Your task to perform on an android device: Search for hotels in New York Image 0: 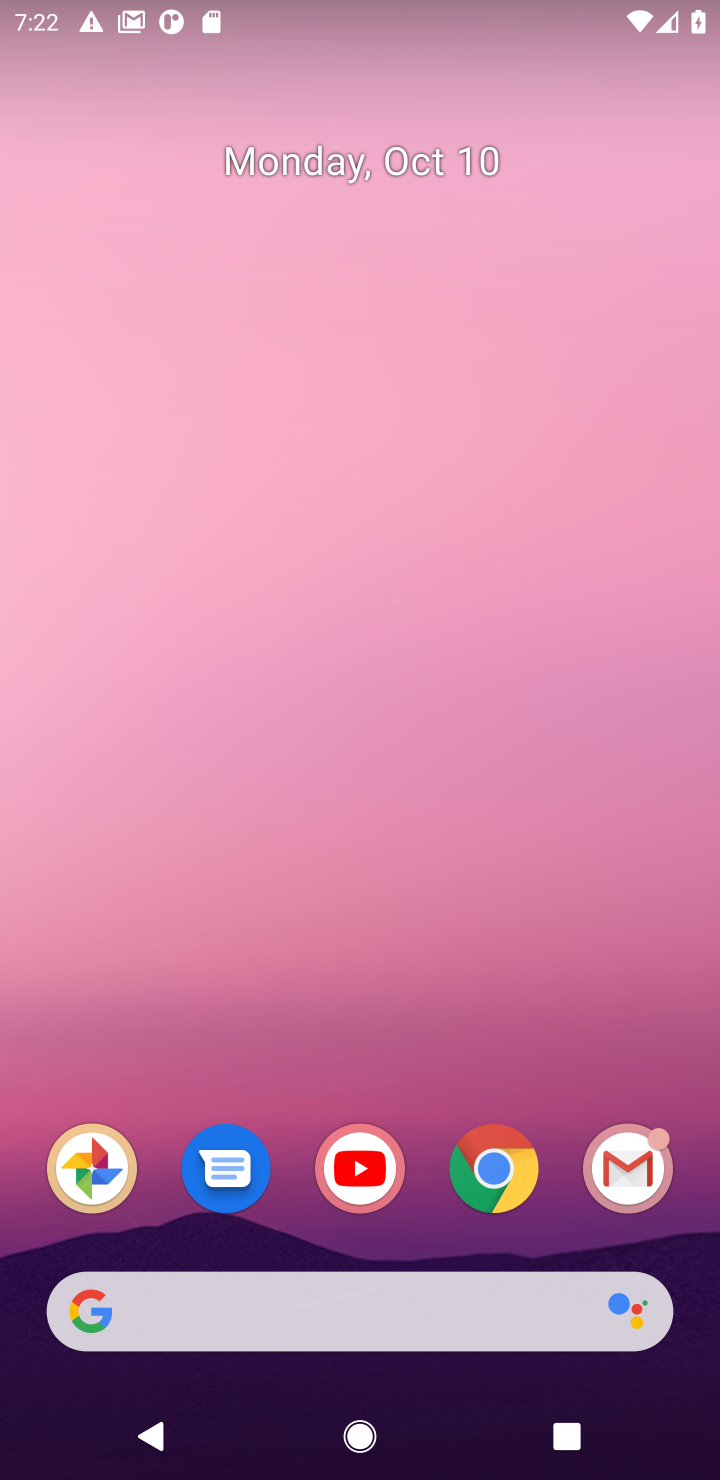
Step 0: click (477, 1171)
Your task to perform on an android device: Search for hotels in New York Image 1: 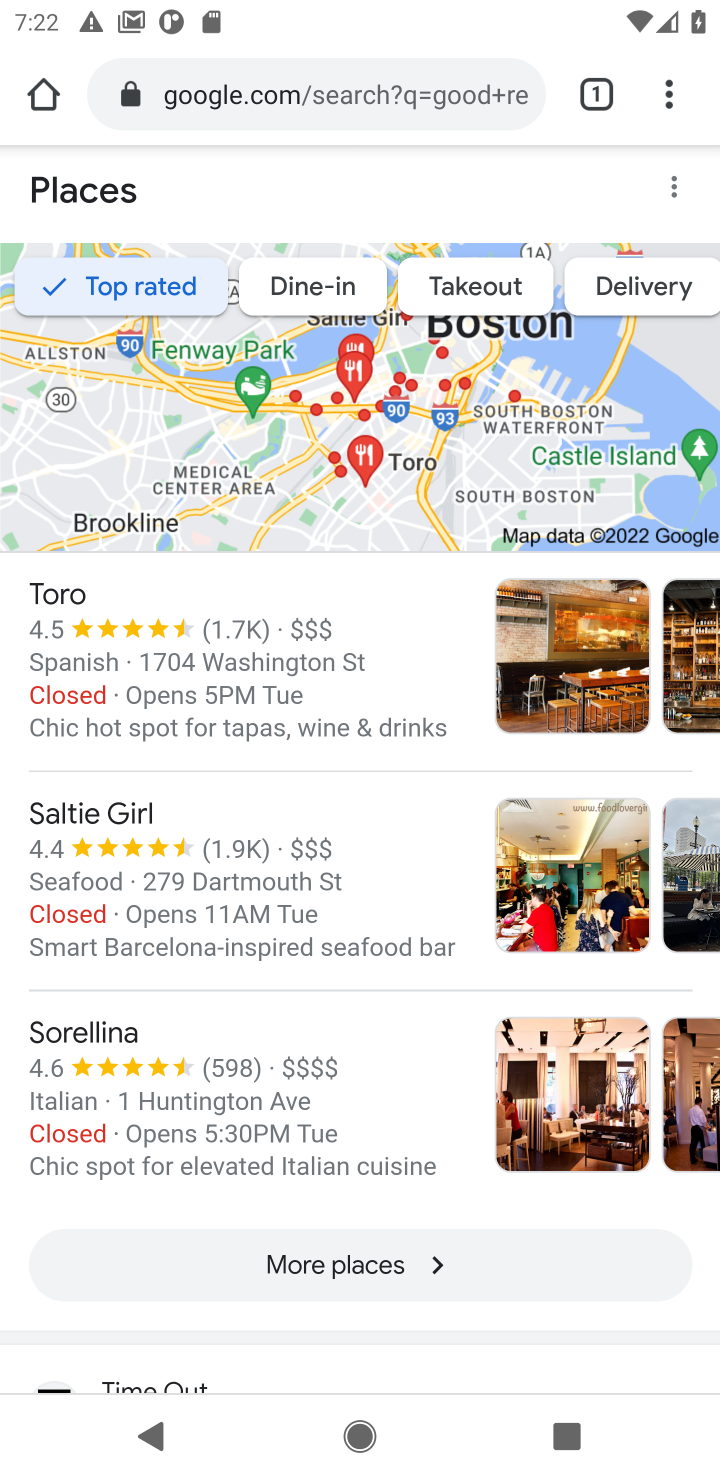
Step 1: click (270, 108)
Your task to perform on an android device: Search for hotels in New York Image 2: 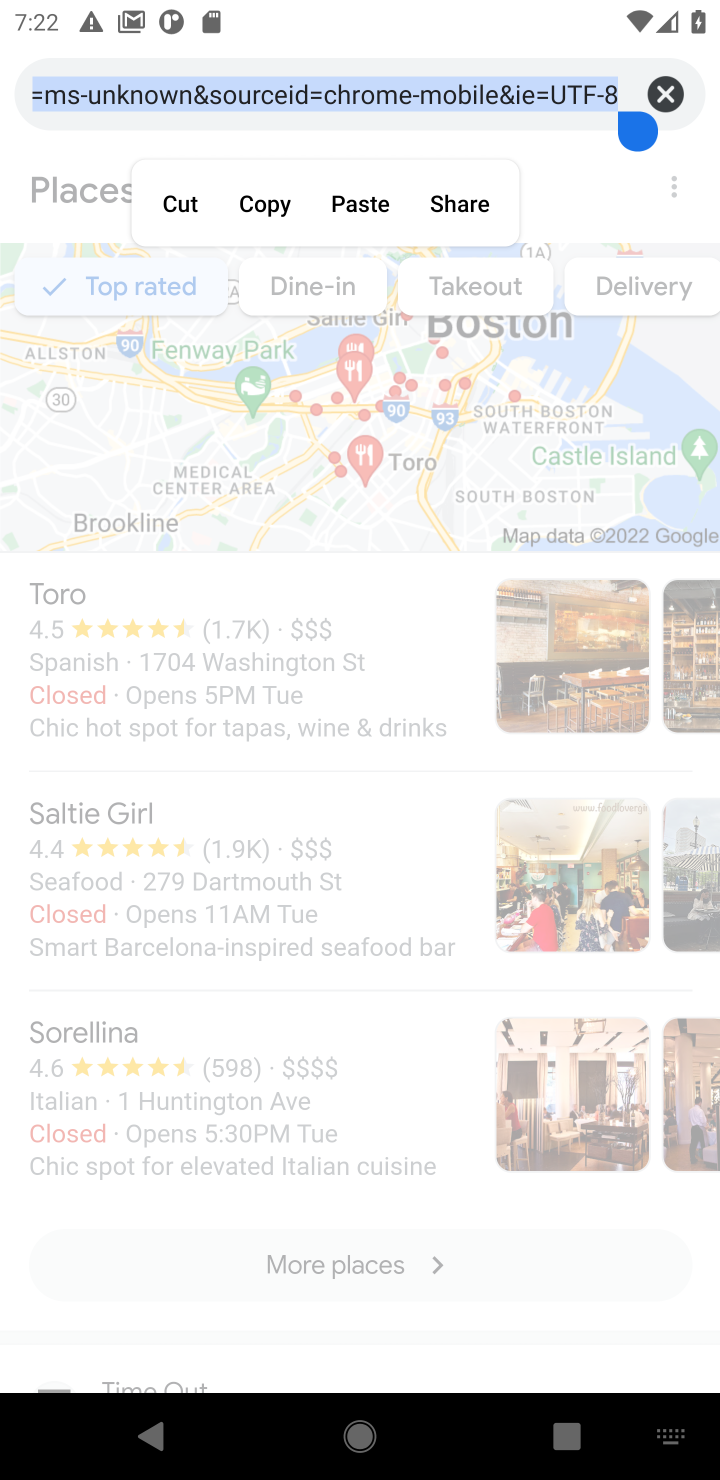
Step 2: click (675, 111)
Your task to perform on an android device: Search for hotels in New York Image 3: 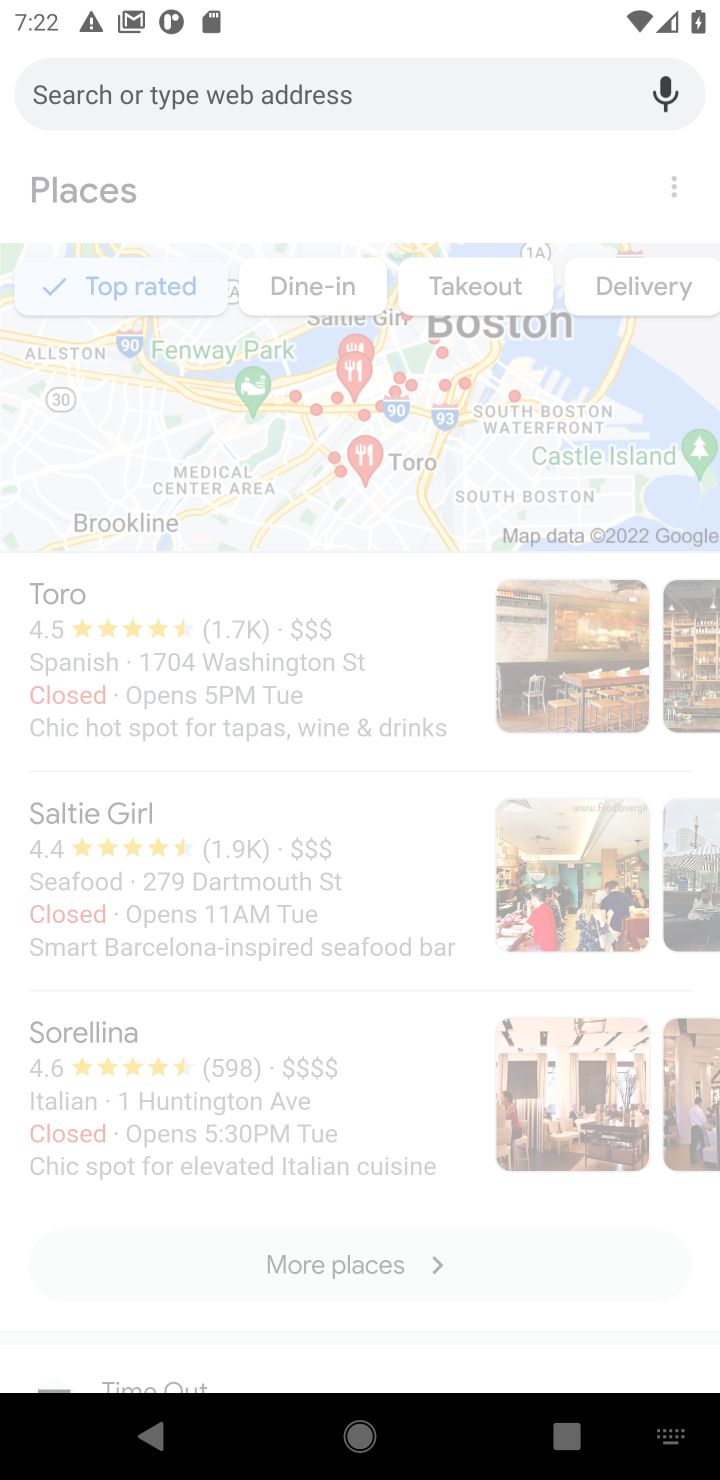
Step 3: type "hotels in new york"
Your task to perform on an android device: Search for hotels in New York Image 4: 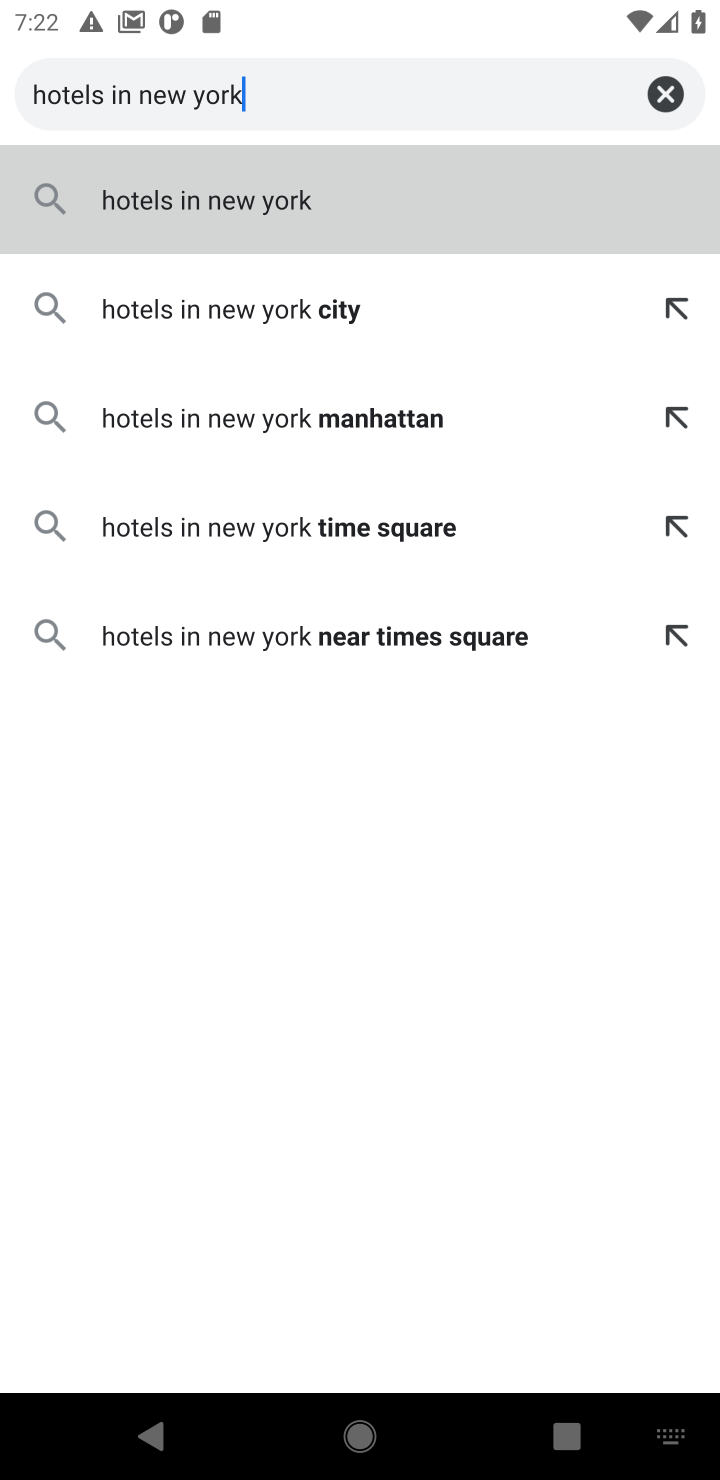
Step 4: click (208, 201)
Your task to perform on an android device: Search for hotels in New York Image 5: 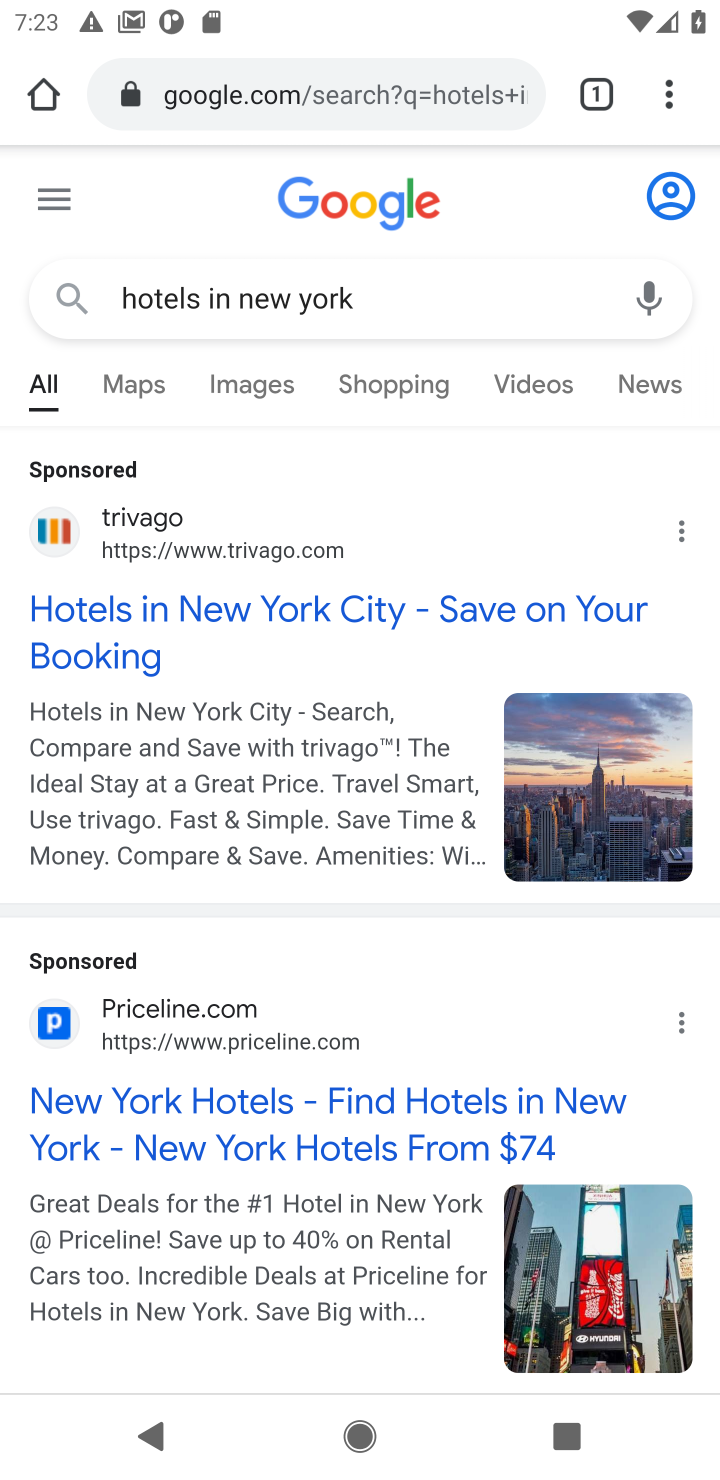
Step 5: click (103, 654)
Your task to perform on an android device: Search for hotels in New York Image 6: 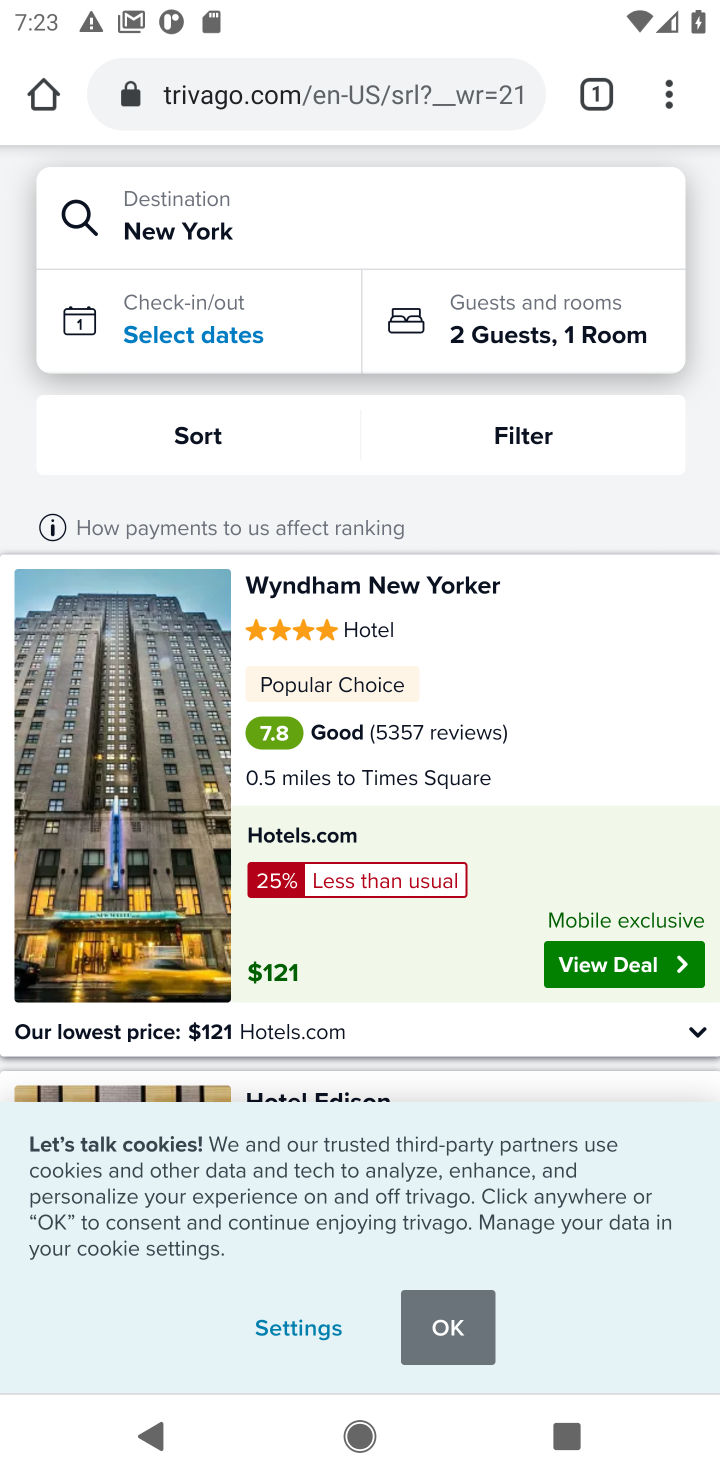
Step 6: task complete